Your task to perform on an android device: set an alarm Image 0: 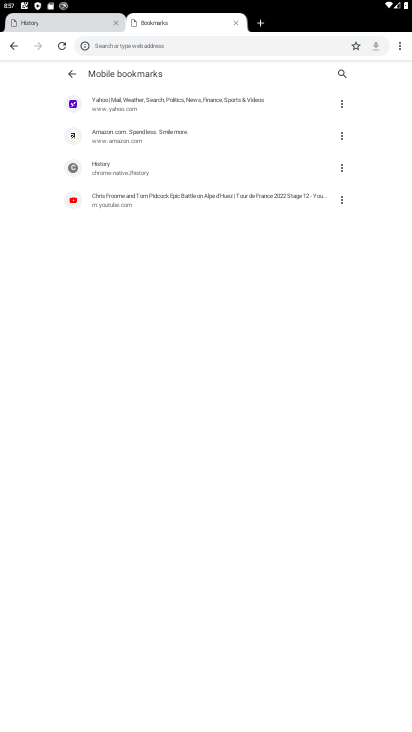
Step 0: press home button
Your task to perform on an android device: set an alarm Image 1: 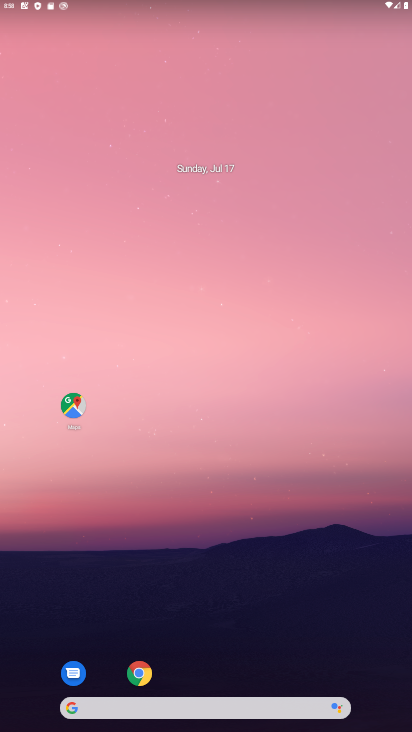
Step 1: drag from (229, 656) to (238, 74)
Your task to perform on an android device: set an alarm Image 2: 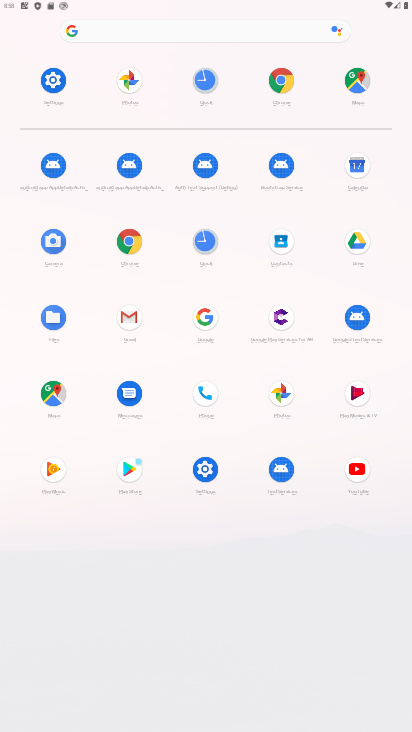
Step 2: click (199, 230)
Your task to perform on an android device: set an alarm Image 3: 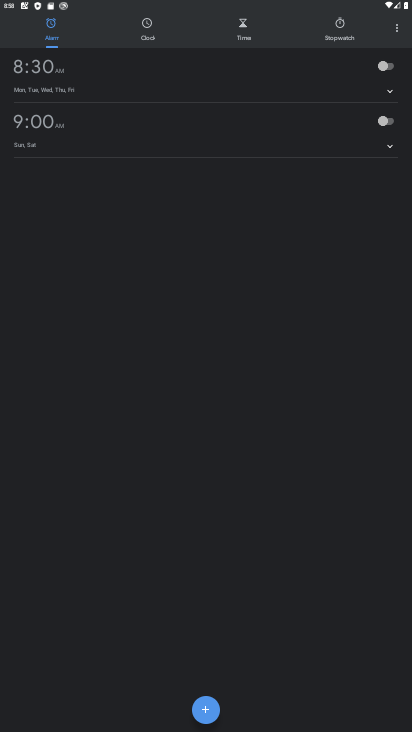
Step 3: click (202, 705)
Your task to perform on an android device: set an alarm Image 4: 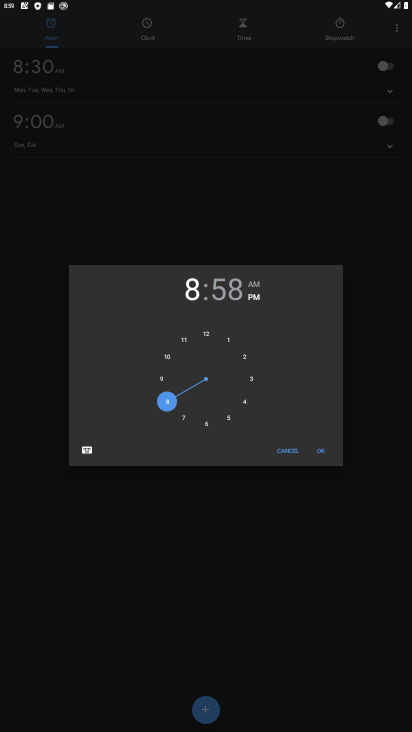
Step 4: click (323, 445)
Your task to perform on an android device: set an alarm Image 5: 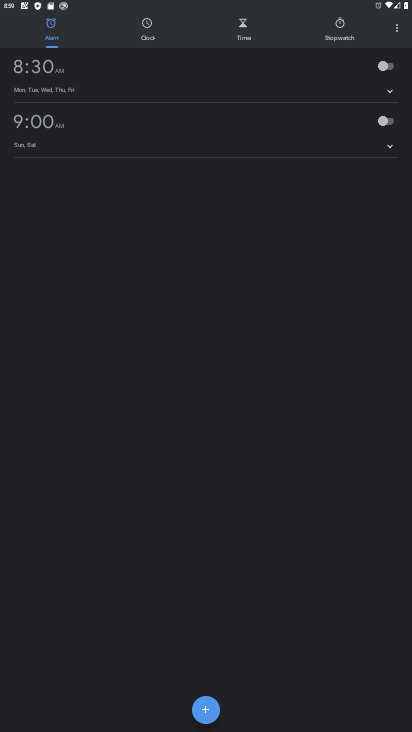
Step 5: click (325, 455)
Your task to perform on an android device: set an alarm Image 6: 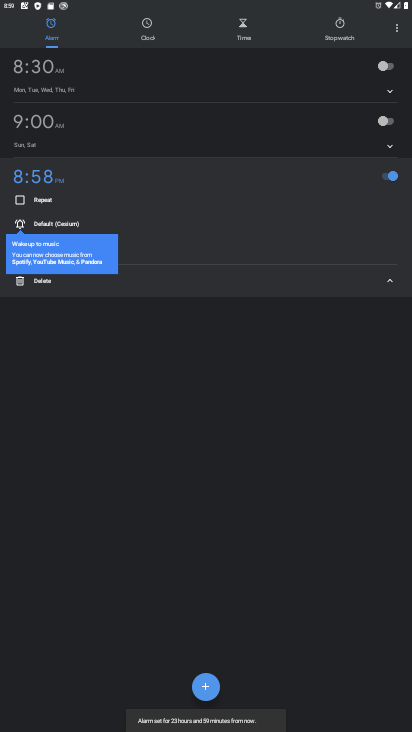
Step 6: task complete